Your task to perform on an android device: Open notification settings Image 0: 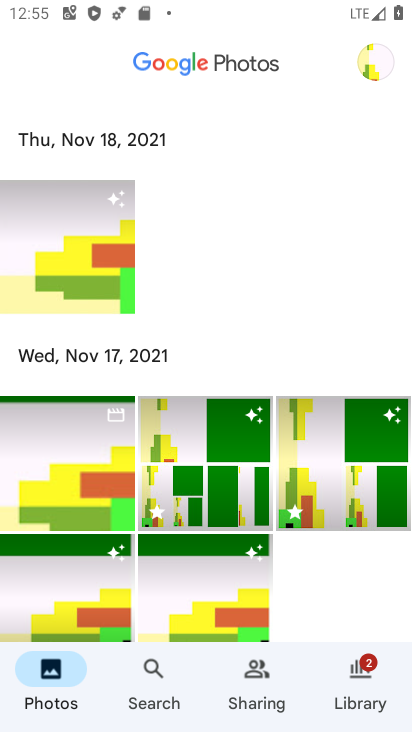
Step 0: press home button
Your task to perform on an android device: Open notification settings Image 1: 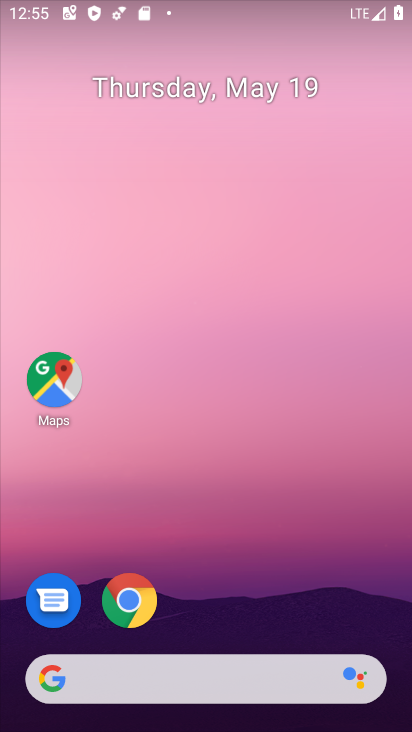
Step 1: drag from (236, 536) to (167, 0)
Your task to perform on an android device: Open notification settings Image 2: 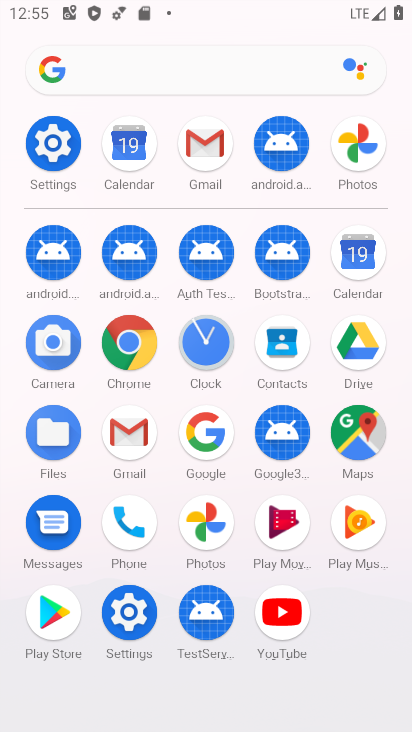
Step 2: click (59, 140)
Your task to perform on an android device: Open notification settings Image 3: 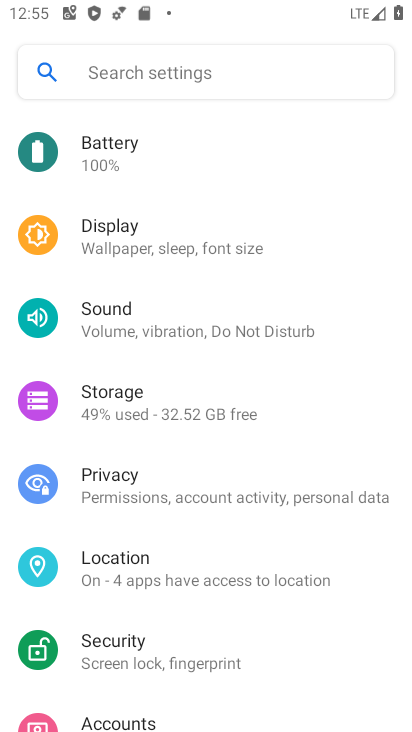
Step 3: drag from (207, 205) to (205, 583)
Your task to perform on an android device: Open notification settings Image 4: 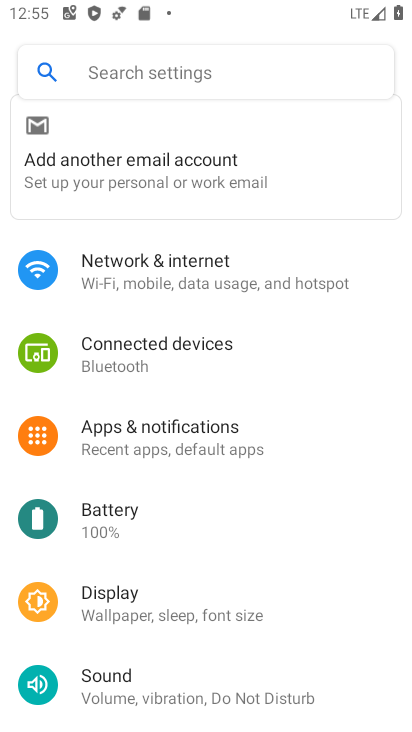
Step 4: click (150, 433)
Your task to perform on an android device: Open notification settings Image 5: 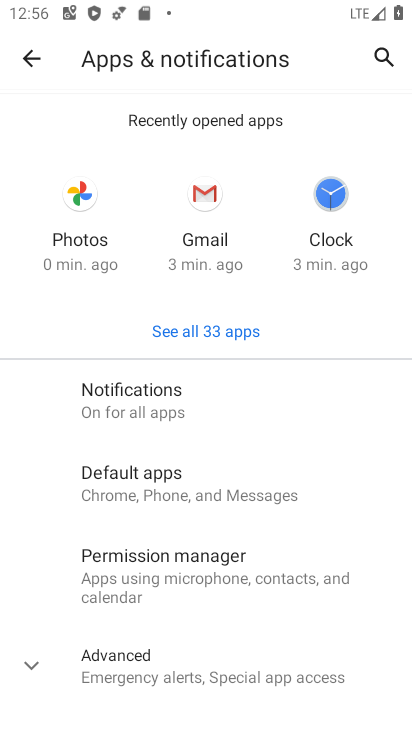
Step 5: click (135, 409)
Your task to perform on an android device: Open notification settings Image 6: 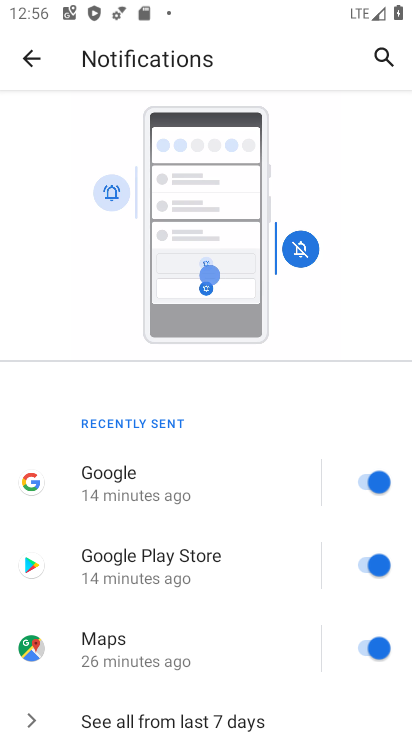
Step 6: task complete